Your task to perform on an android device: toggle improve location accuracy Image 0: 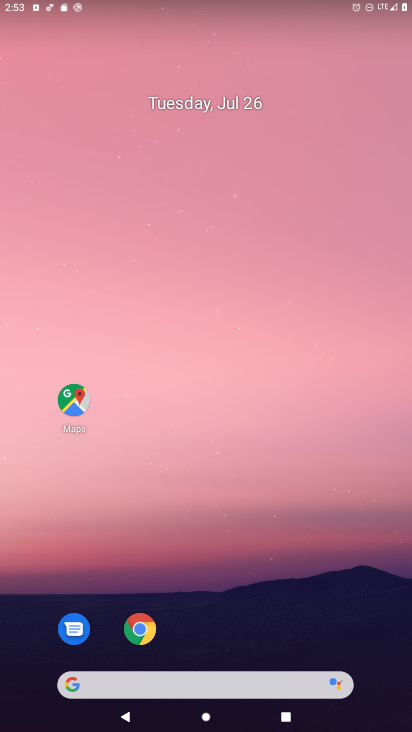
Step 0: drag from (375, 637) to (266, 74)
Your task to perform on an android device: toggle improve location accuracy Image 1: 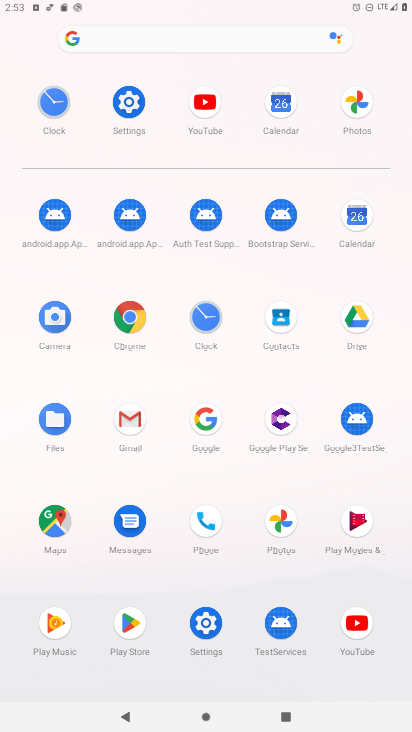
Step 1: click (208, 624)
Your task to perform on an android device: toggle improve location accuracy Image 2: 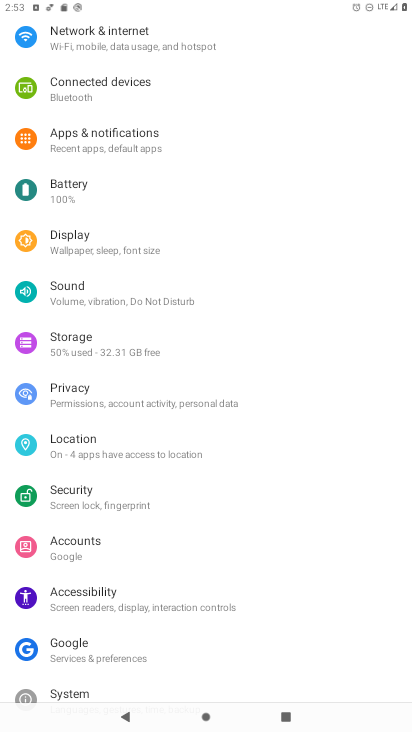
Step 2: click (74, 437)
Your task to perform on an android device: toggle improve location accuracy Image 3: 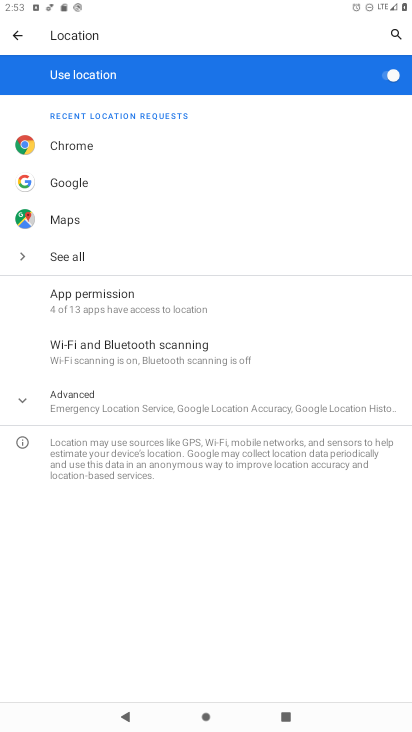
Step 3: click (26, 403)
Your task to perform on an android device: toggle improve location accuracy Image 4: 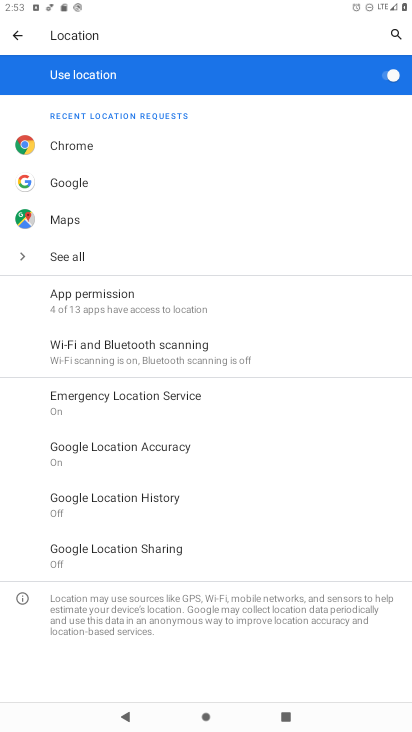
Step 4: click (121, 447)
Your task to perform on an android device: toggle improve location accuracy Image 5: 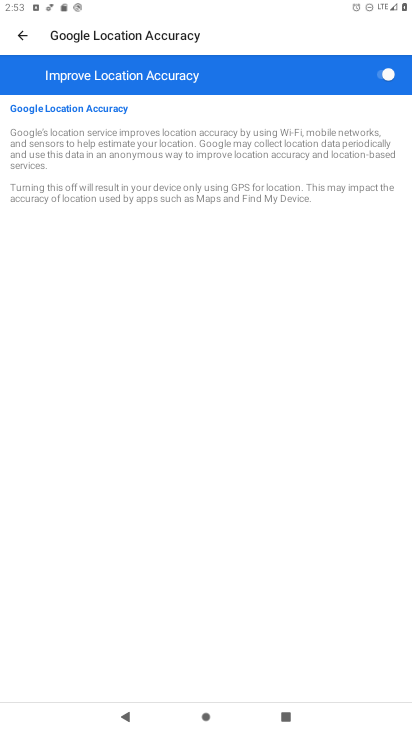
Step 5: click (384, 71)
Your task to perform on an android device: toggle improve location accuracy Image 6: 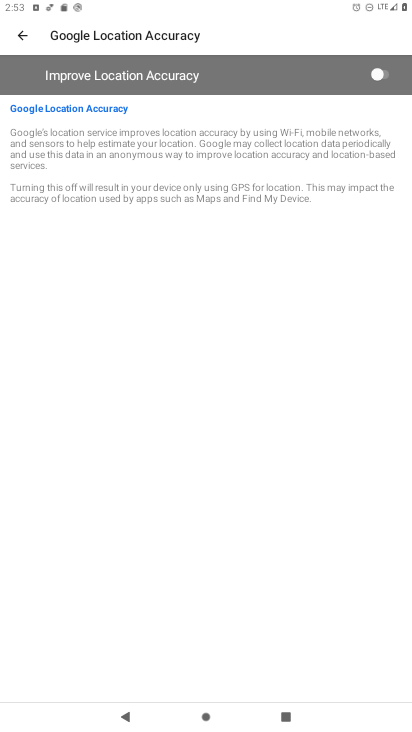
Step 6: task complete